Your task to perform on an android device: Go to internet settings Image 0: 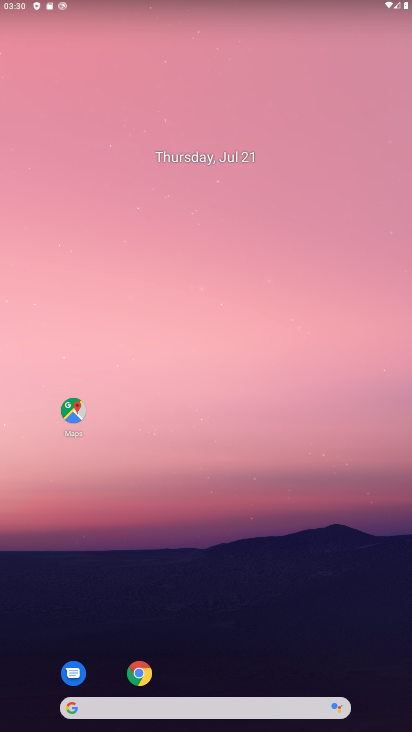
Step 0: drag from (315, 616) to (330, 48)
Your task to perform on an android device: Go to internet settings Image 1: 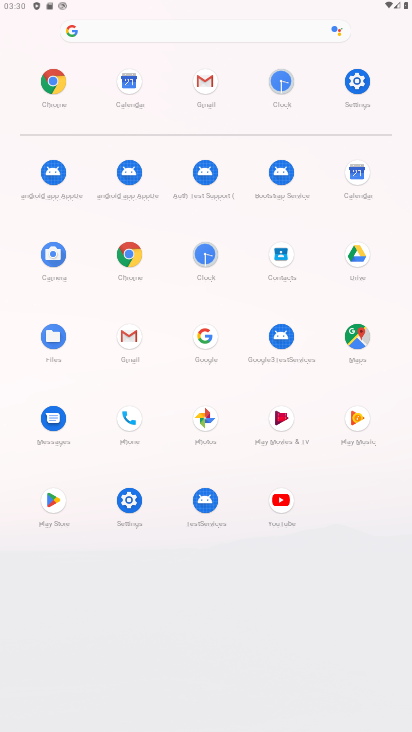
Step 1: click (368, 78)
Your task to perform on an android device: Go to internet settings Image 2: 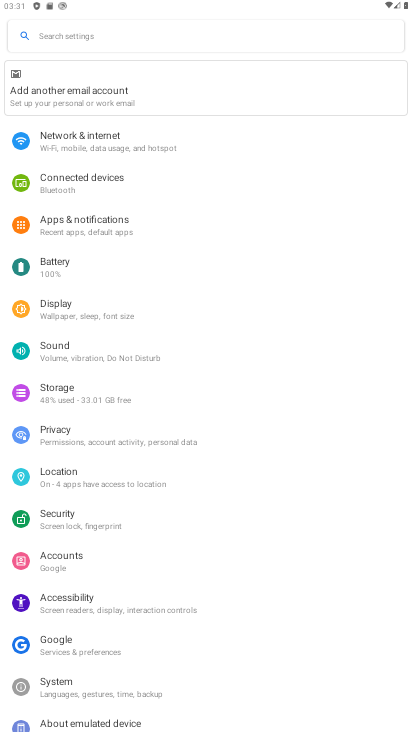
Step 2: click (171, 145)
Your task to perform on an android device: Go to internet settings Image 3: 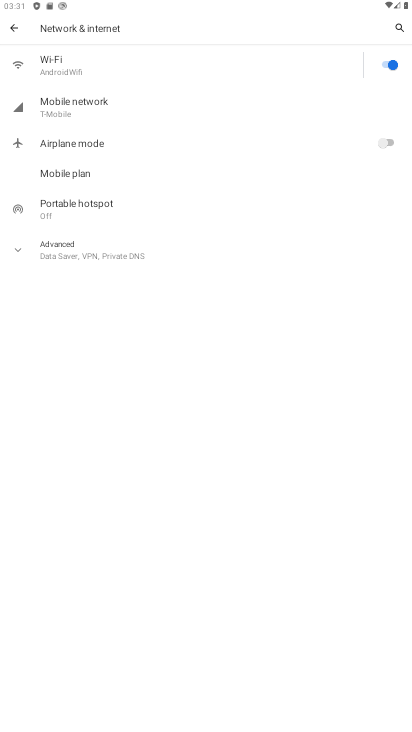
Step 3: click (69, 263)
Your task to perform on an android device: Go to internet settings Image 4: 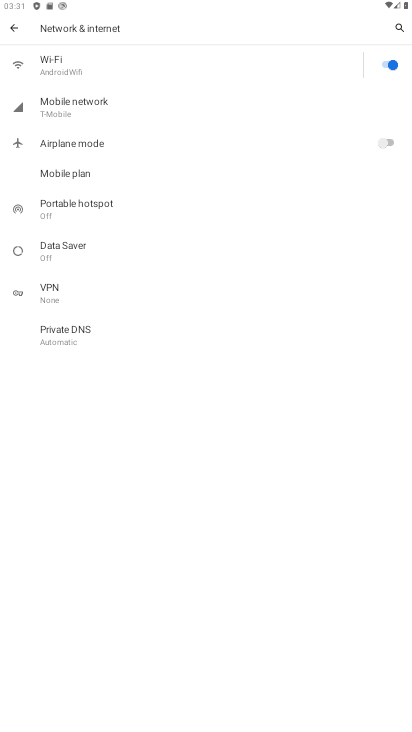
Step 4: task complete